Your task to perform on an android device: delete browsing data in the chrome app Image 0: 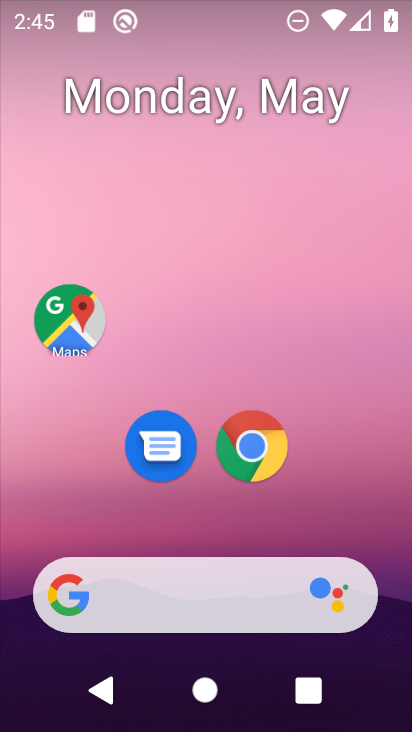
Step 0: click (261, 445)
Your task to perform on an android device: delete browsing data in the chrome app Image 1: 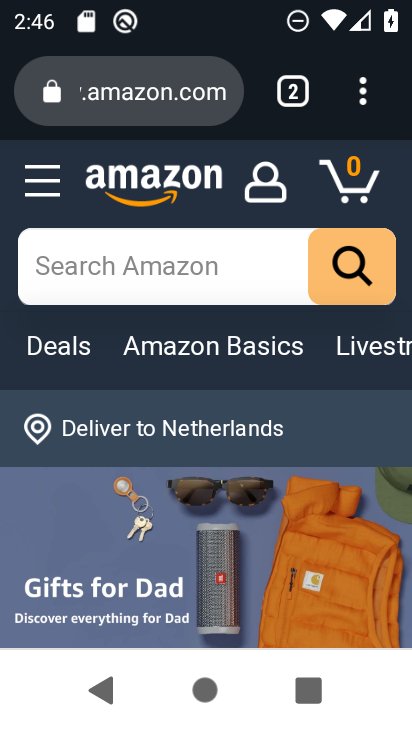
Step 1: click (377, 90)
Your task to perform on an android device: delete browsing data in the chrome app Image 2: 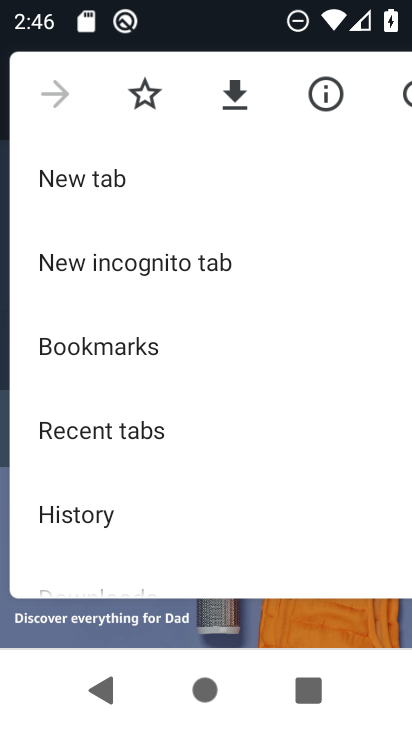
Step 2: click (63, 528)
Your task to perform on an android device: delete browsing data in the chrome app Image 3: 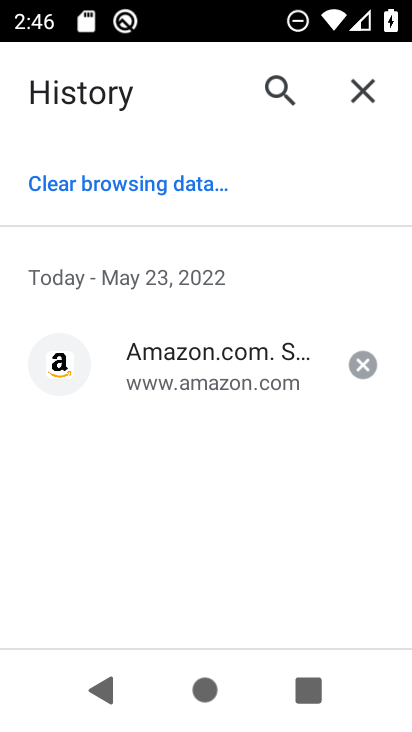
Step 3: click (177, 192)
Your task to perform on an android device: delete browsing data in the chrome app Image 4: 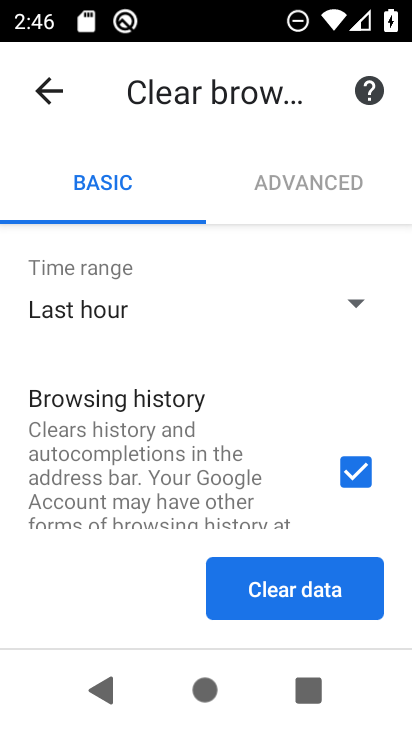
Step 4: click (254, 580)
Your task to perform on an android device: delete browsing data in the chrome app Image 5: 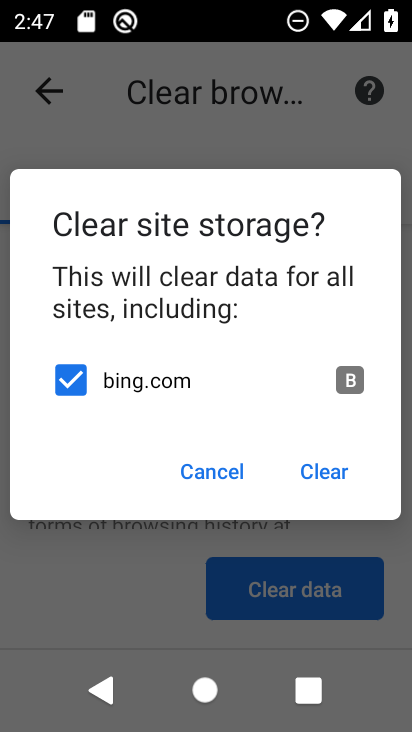
Step 5: click (344, 480)
Your task to perform on an android device: delete browsing data in the chrome app Image 6: 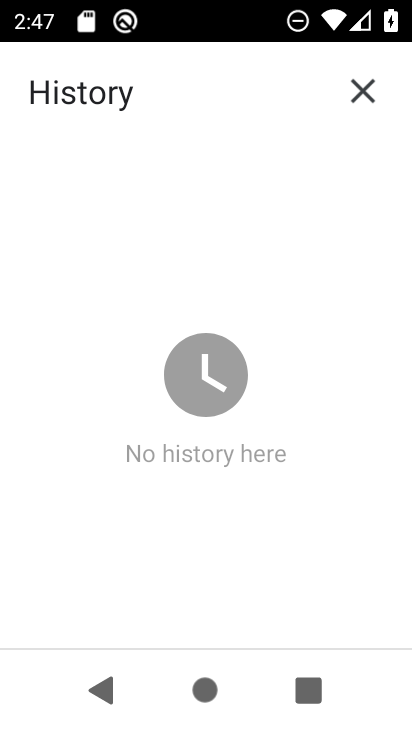
Step 6: task complete